Your task to perform on an android device: Go to Android settings Image 0: 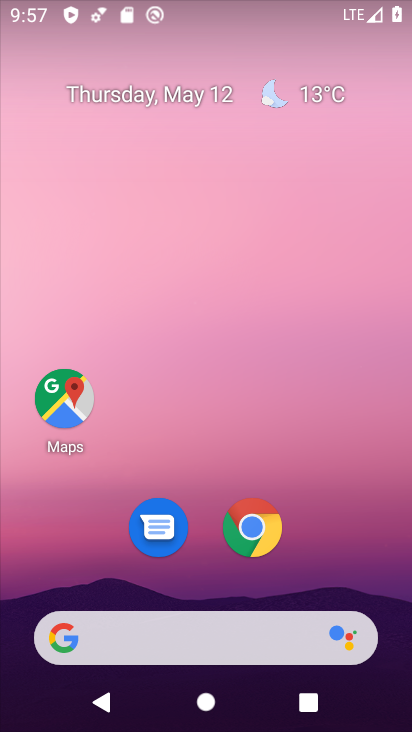
Step 0: drag from (346, 550) to (166, 197)
Your task to perform on an android device: Go to Android settings Image 1: 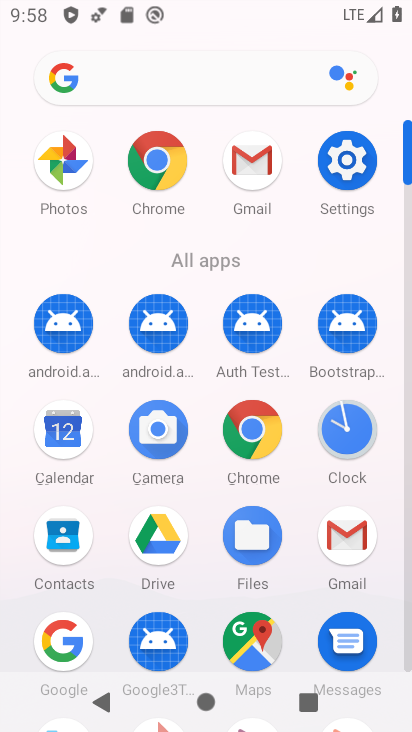
Step 1: click (346, 163)
Your task to perform on an android device: Go to Android settings Image 2: 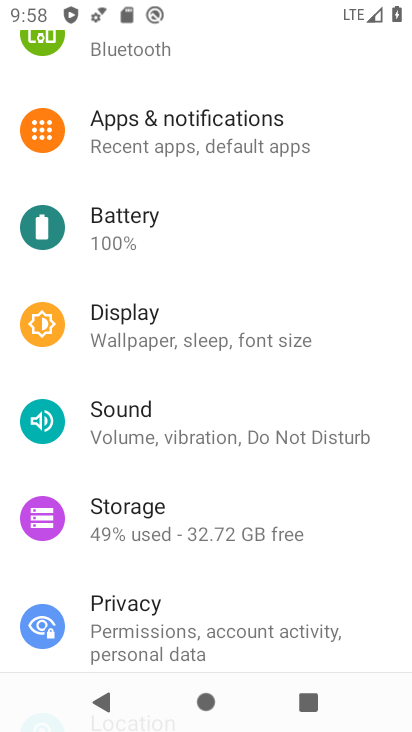
Step 2: task complete